Your task to perform on an android device: Search for pizza restaurants on Maps Image 0: 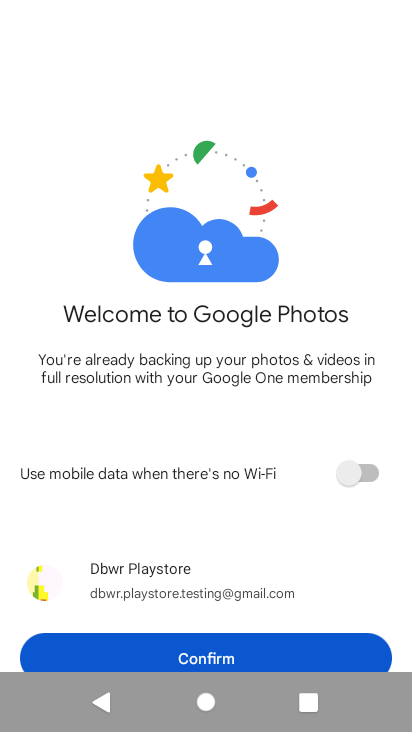
Step 0: press home button
Your task to perform on an android device: Search for pizza restaurants on Maps Image 1: 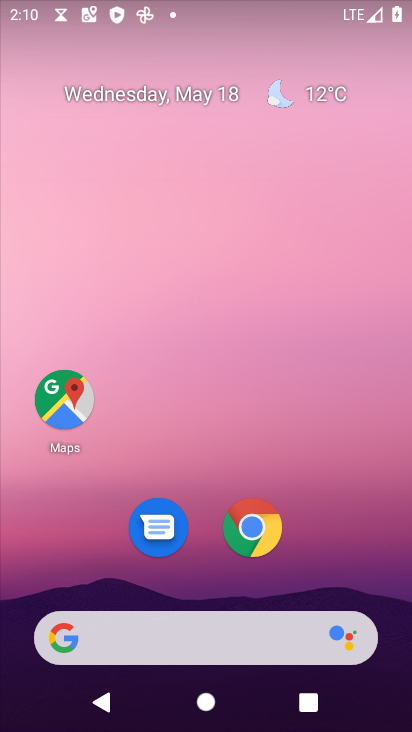
Step 1: click (62, 411)
Your task to perform on an android device: Search for pizza restaurants on Maps Image 2: 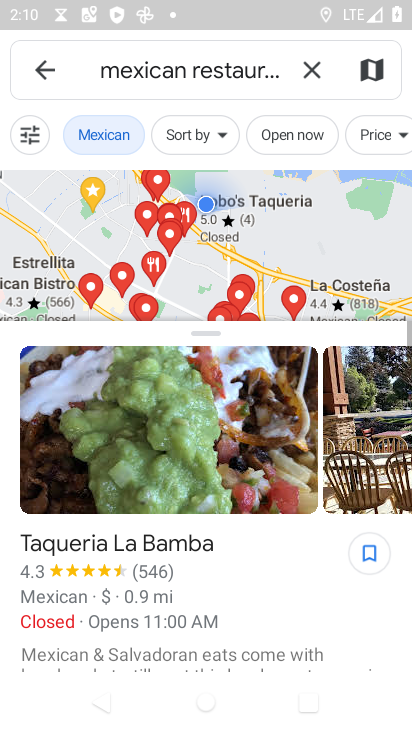
Step 2: click (316, 74)
Your task to perform on an android device: Search for pizza restaurants on Maps Image 3: 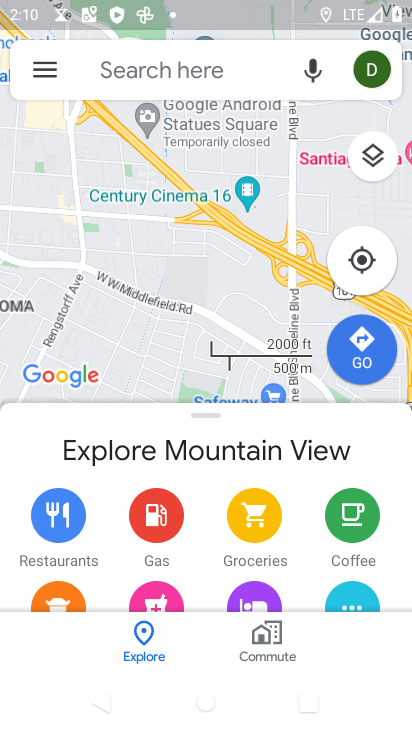
Step 3: click (158, 69)
Your task to perform on an android device: Search for pizza restaurants on Maps Image 4: 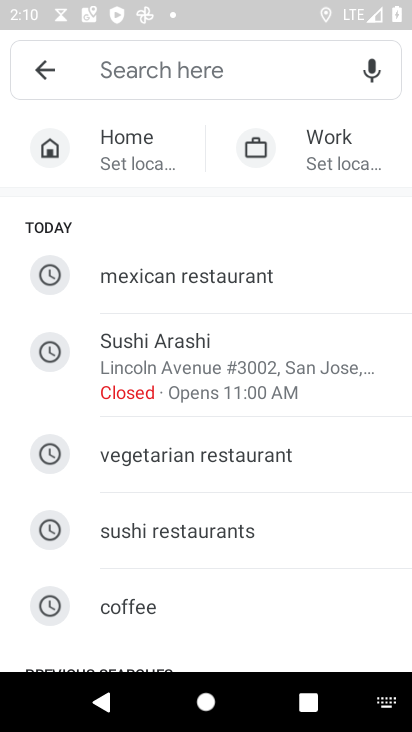
Step 4: type "pizza restaurants"
Your task to perform on an android device: Search for pizza restaurants on Maps Image 5: 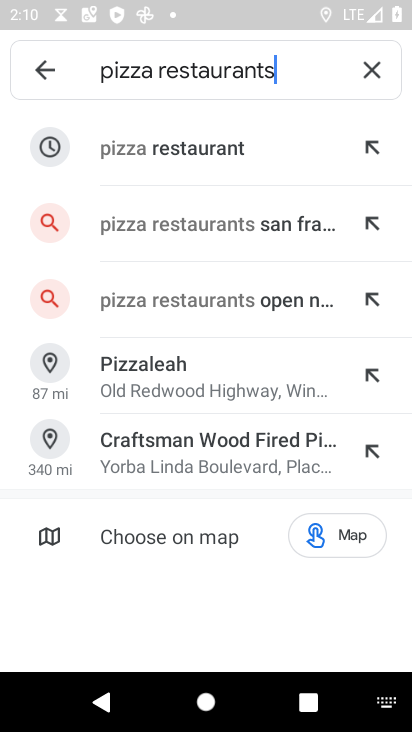
Step 5: click (171, 148)
Your task to perform on an android device: Search for pizza restaurants on Maps Image 6: 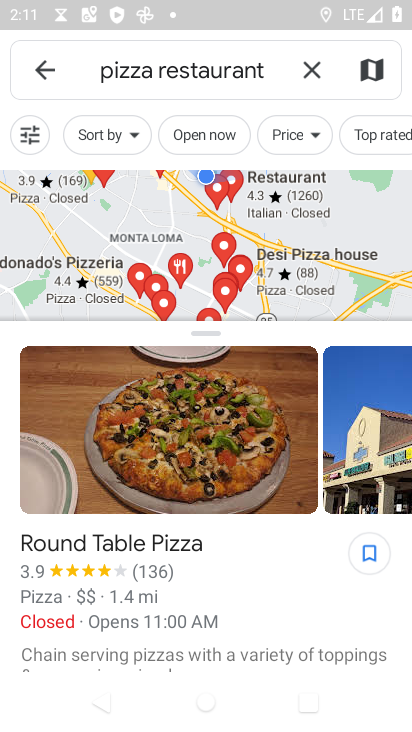
Step 6: task complete